Your task to perform on an android device: Open settings Image 0: 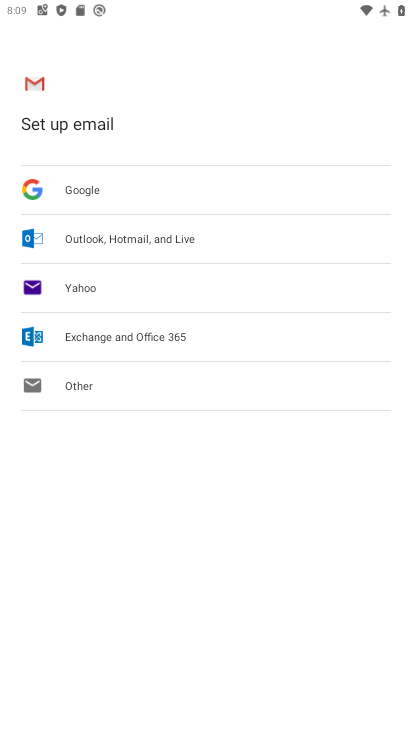
Step 0: press home button
Your task to perform on an android device: Open settings Image 1: 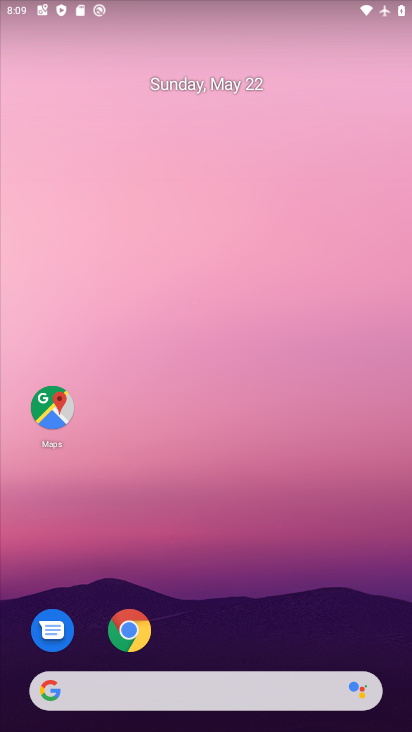
Step 1: drag from (374, 631) to (305, 57)
Your task to perform on an android device: Open settings Image 2: 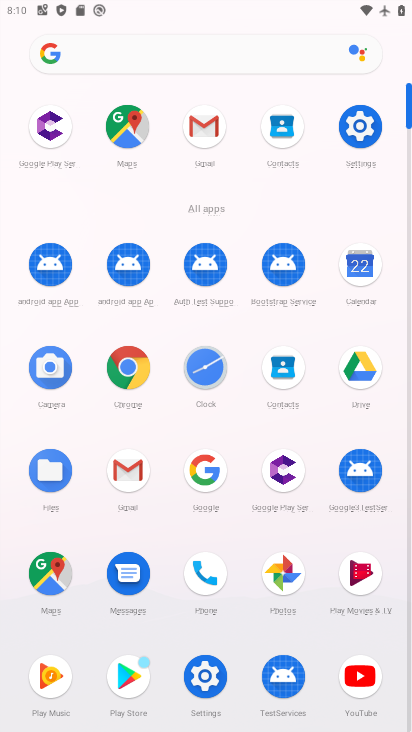
Step 2: click (208, 675)
Your task to perform on an android device: Open settings Image 3: 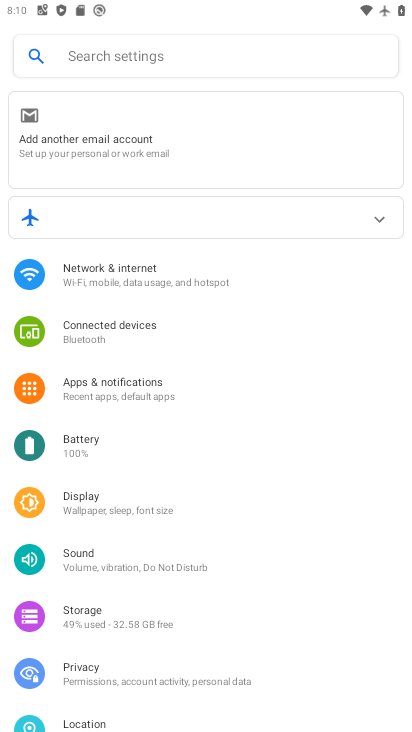
Step 3: task complete